Your task to perform on an android device: toggle data saver in the chrome app Image 0: 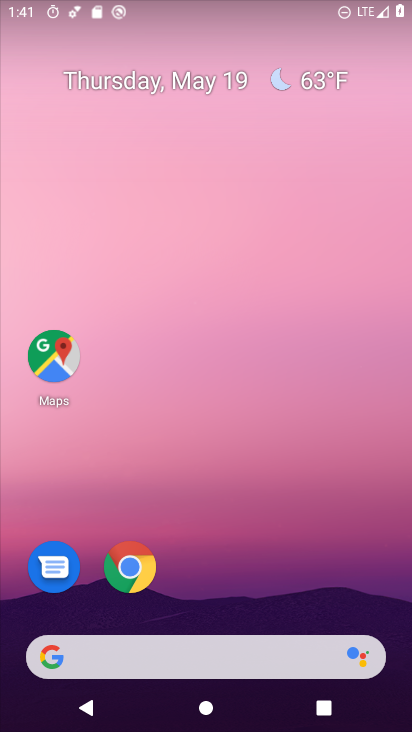
Step 0: press home button
Your task to perform on an android device: toggle data saver in the chrome app Image 1: 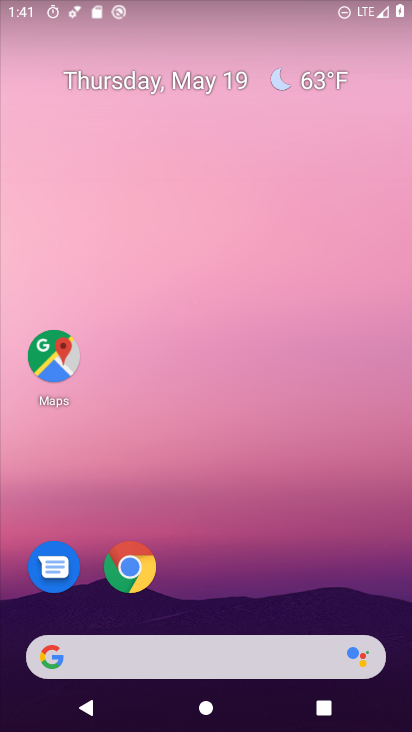
Step 1: click (123, 587)
Your task to perform on an android device: toggle data saver in the chrome app Image 2: 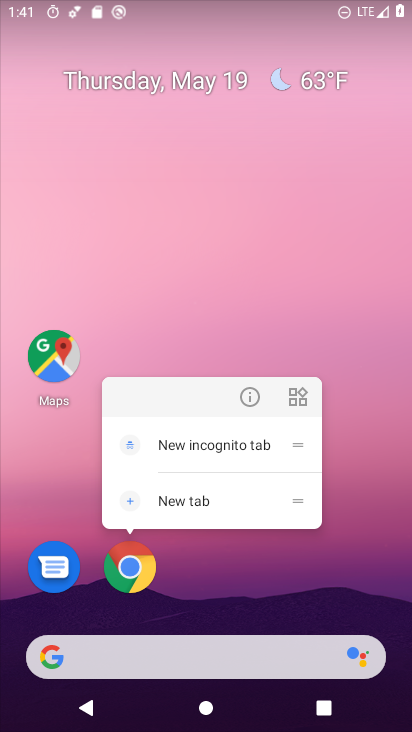
Step 2: click (137, 580)
Your task to perform on an android device: toggle data saver in the chrome app Image 3: 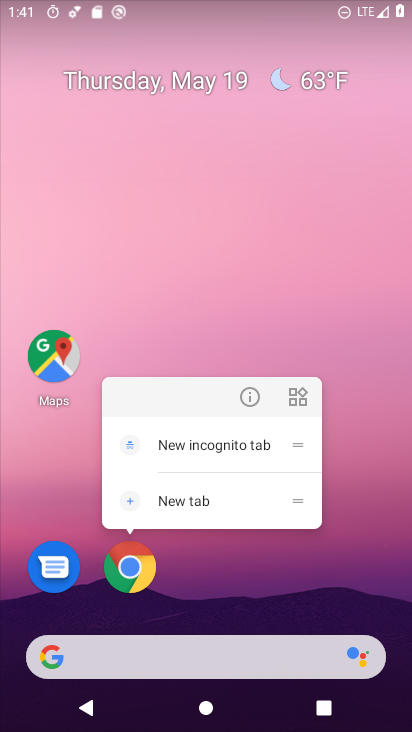
Step 3: click (141, 569)
Your task to perform on an android device: toggle data saver in the chrome app Image 4: 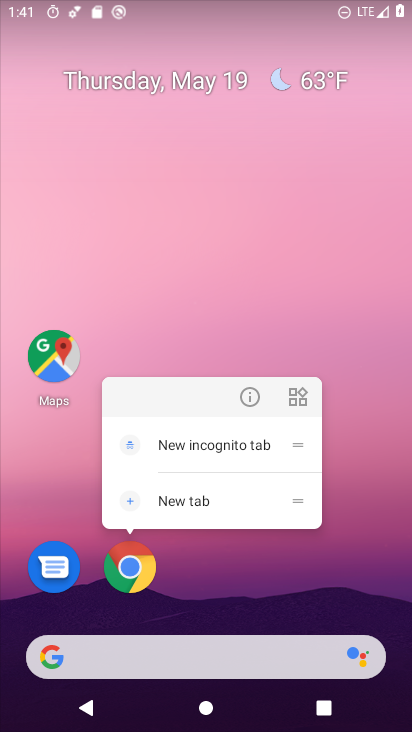
Step 4: click (132, 559)
Your task to perform on an android device: toggle data saver in the chrome app Image 5: 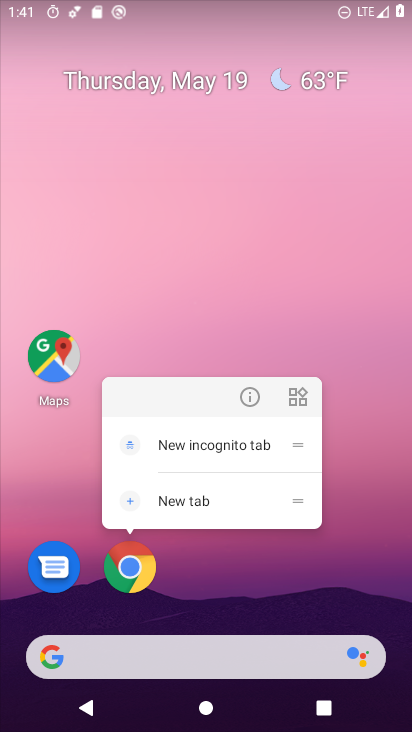
Step 5: click (129, 567)
Your task to perform on an android device: toggle data saver in the chrome app Image 6: 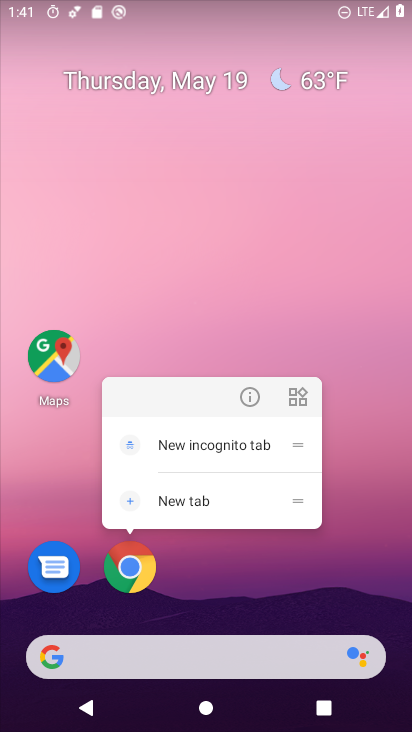
Step 6: click (135, 577)
Your task to perform on an android device: toggle data saver in the chrome app Image 7: 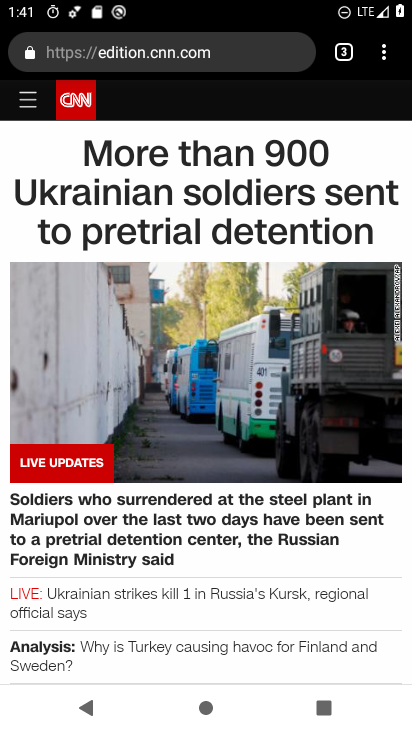
Step 7: drag from (387, 54) to (221, 580)
Your task to perform on an android device: toggle data saver in the chrome app Image 8: 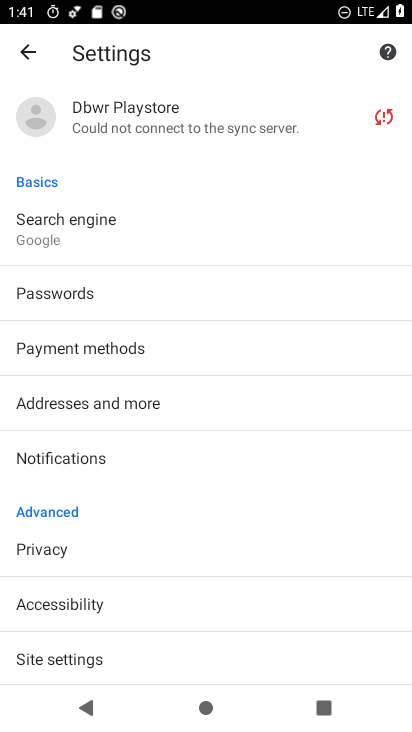
Step 8: drag from (123, 622) to (239, 349)
Your task to perform on an android device: toggle data saver in the chrome app Image 9: 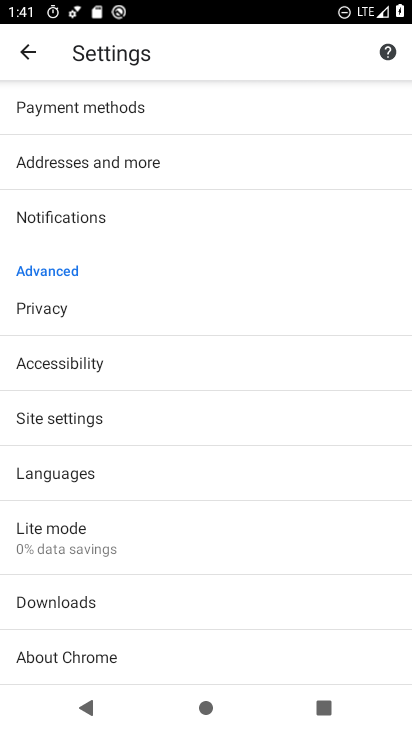
Step 9: click (98, 529)
Your task to perform on an android device: toggle data saver in the chrome app Image 10: 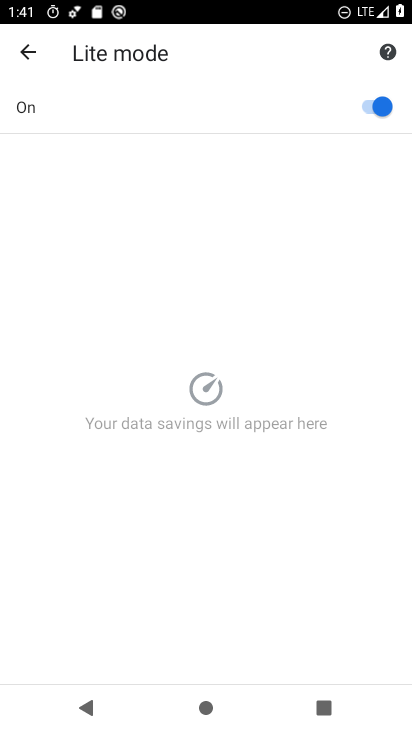
Step 10: click (369, 107)
Your task to perform on an android device: toggle data saver in the chrome app Image 11: 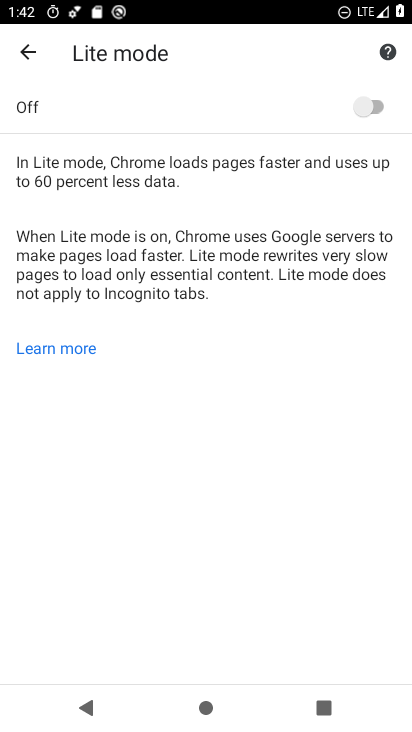
Step 11: task complete